Your task to perform on an android device: delete the emails in spam in the gmail app Image 0: 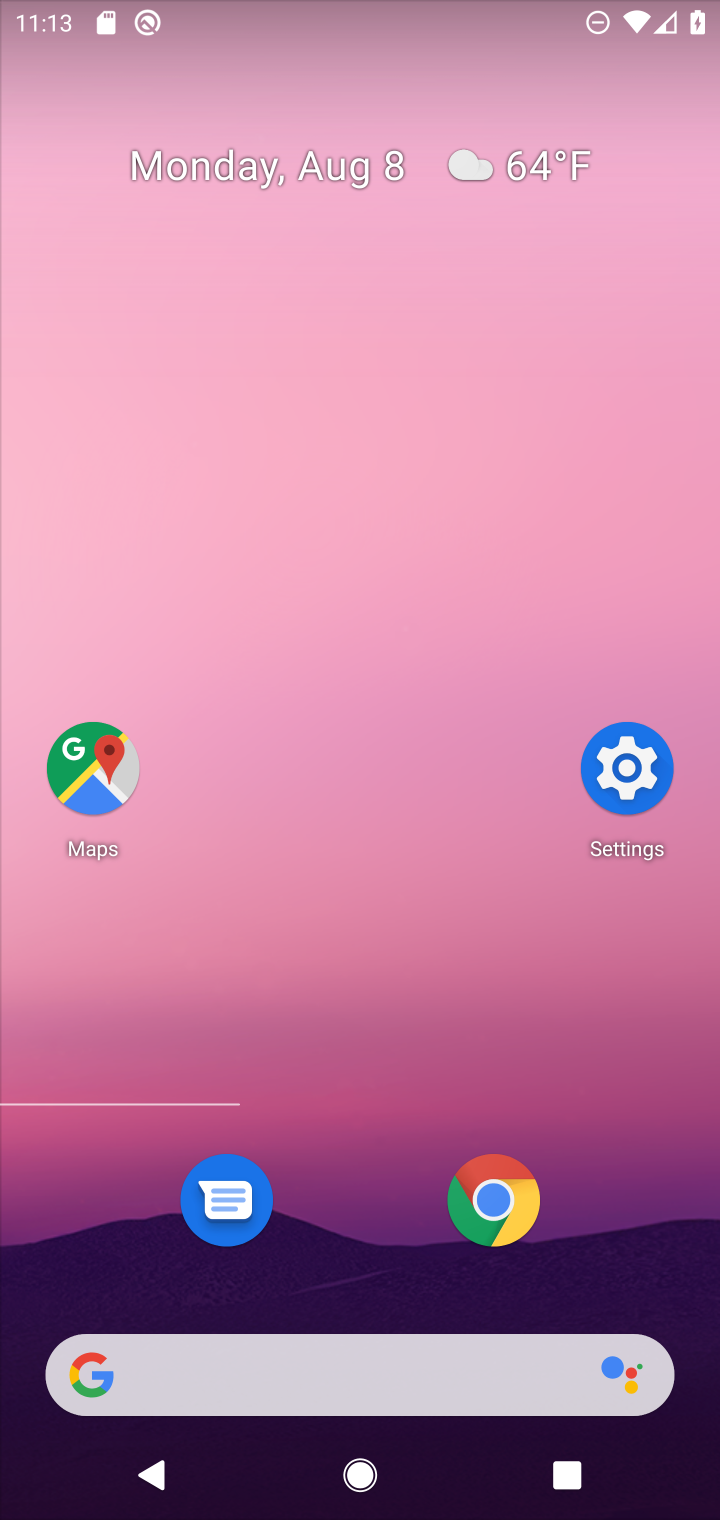
Step 0: drag from (242, 1391) to (529, 165)
Your task to perform on an android device: delete the emails in spam in the gmail app Image 1: 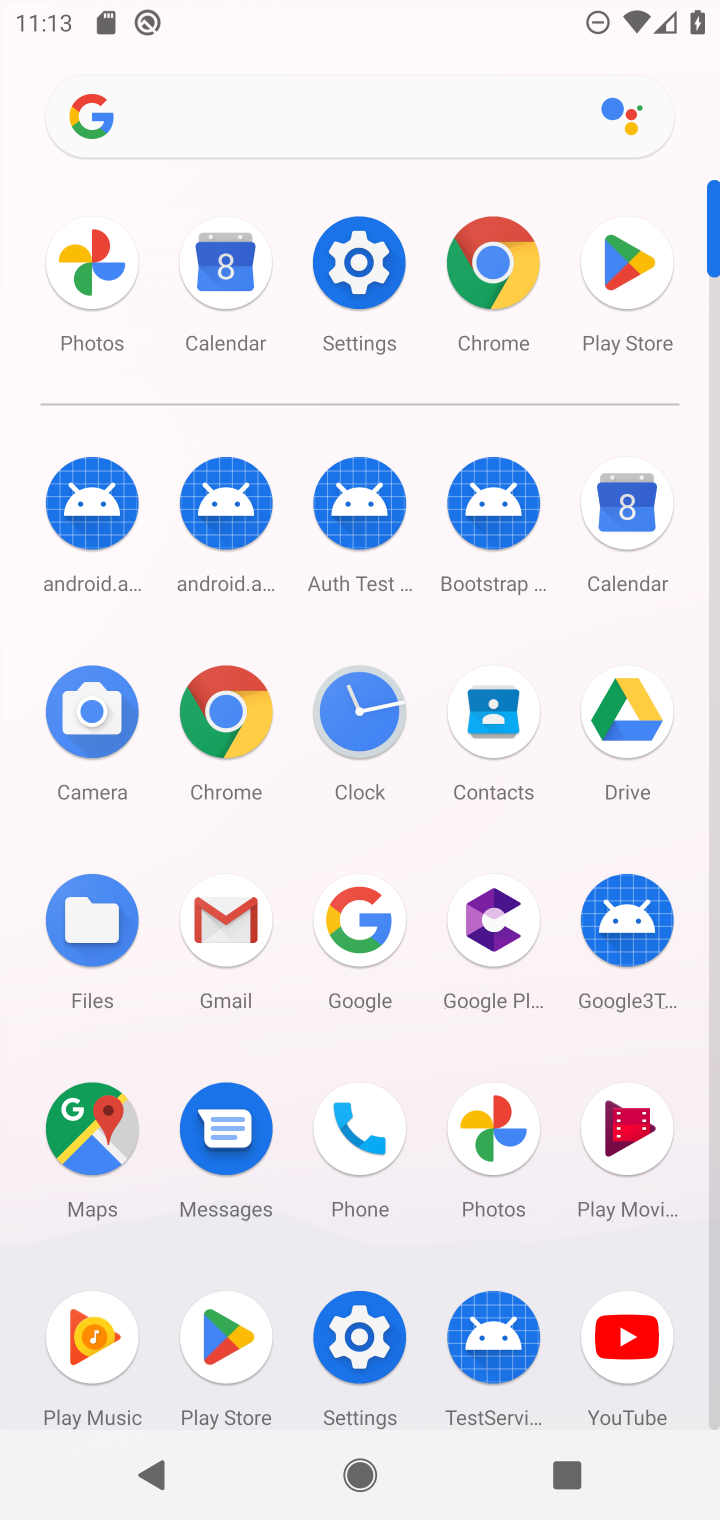
Step 1: click (218, 928)
Your task to perform on an android device: delete the emails in spam in the gmail app Image 2: 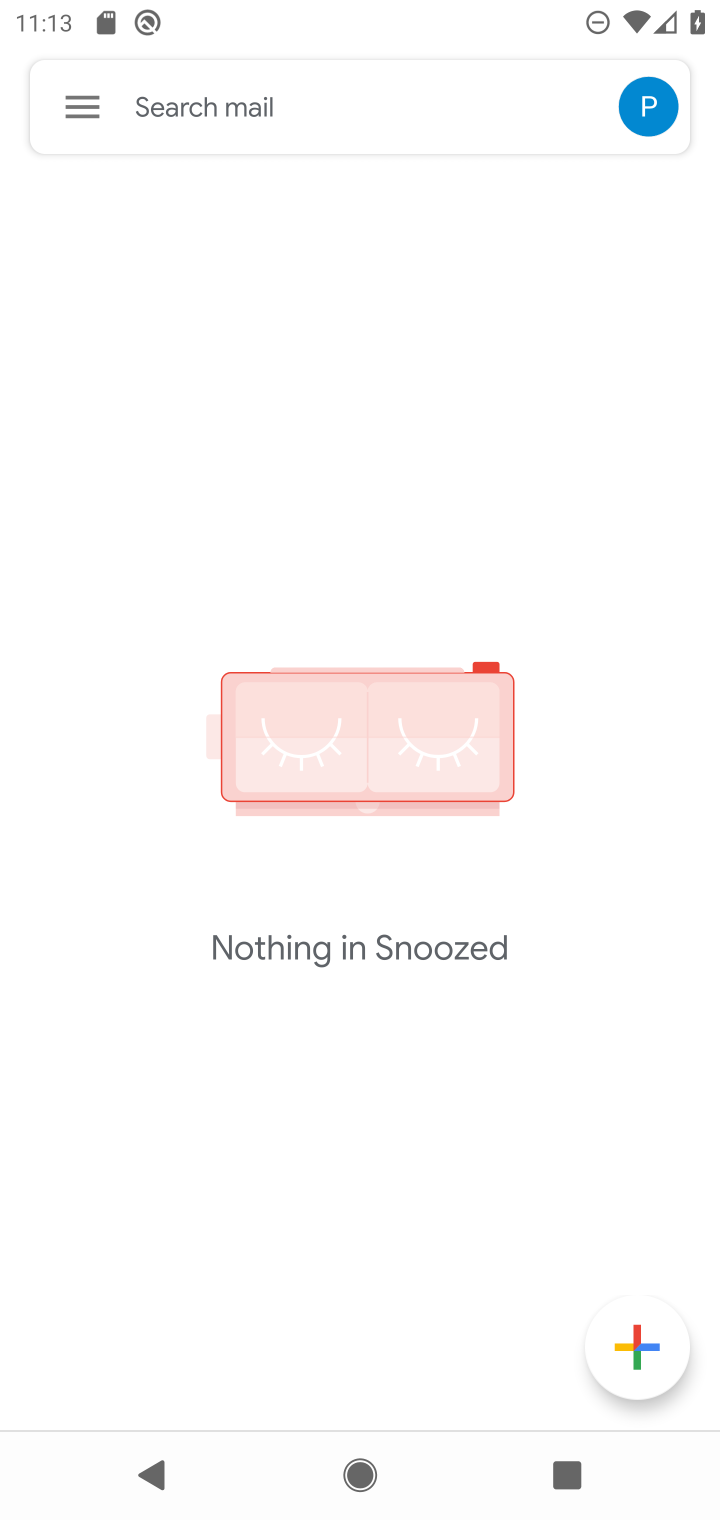
Step 2: click (85, 108)
Your task to perform on an android device: delete the emails in spam in the gmail app Image 3: 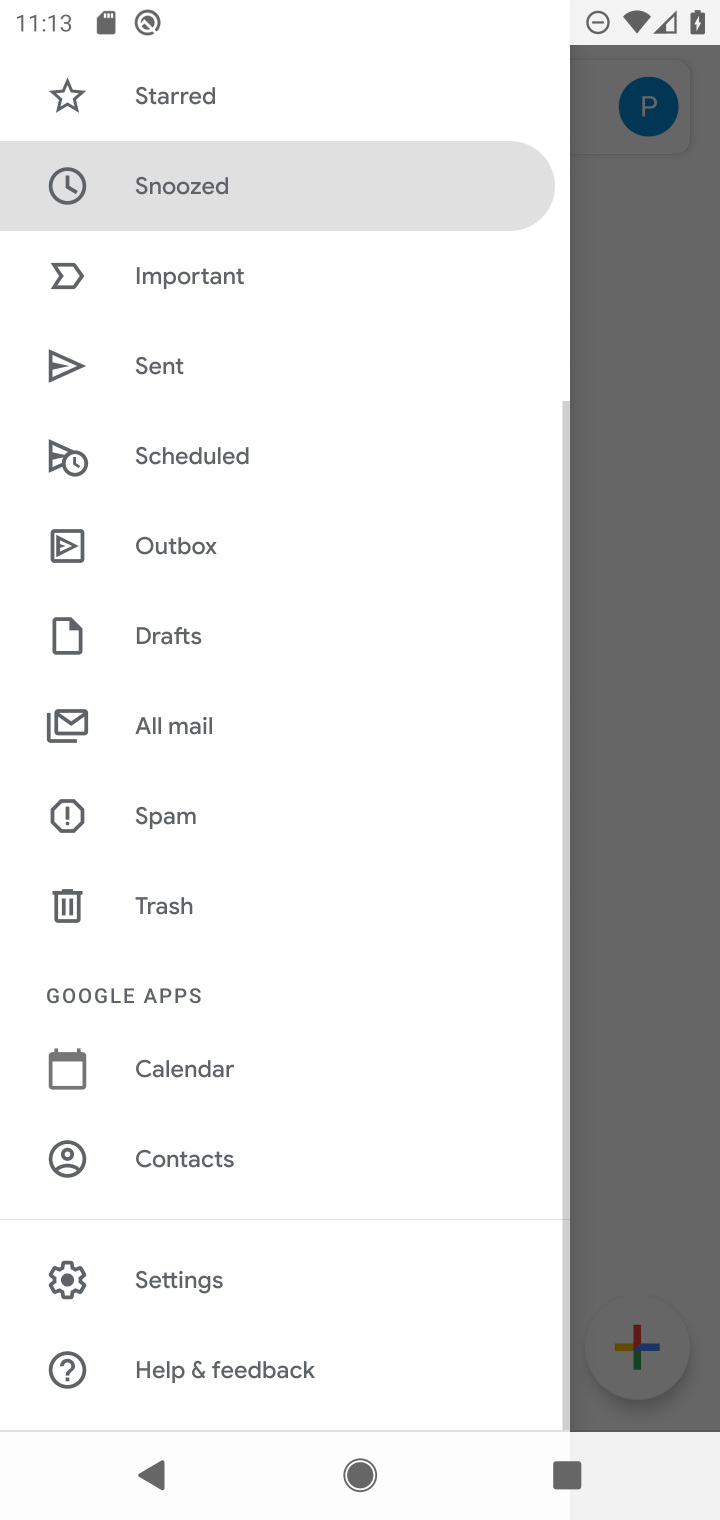
Step 3: click (196, 810)
Your task to perform on an android device: delete the emails in spam in the gmail app Image 4: 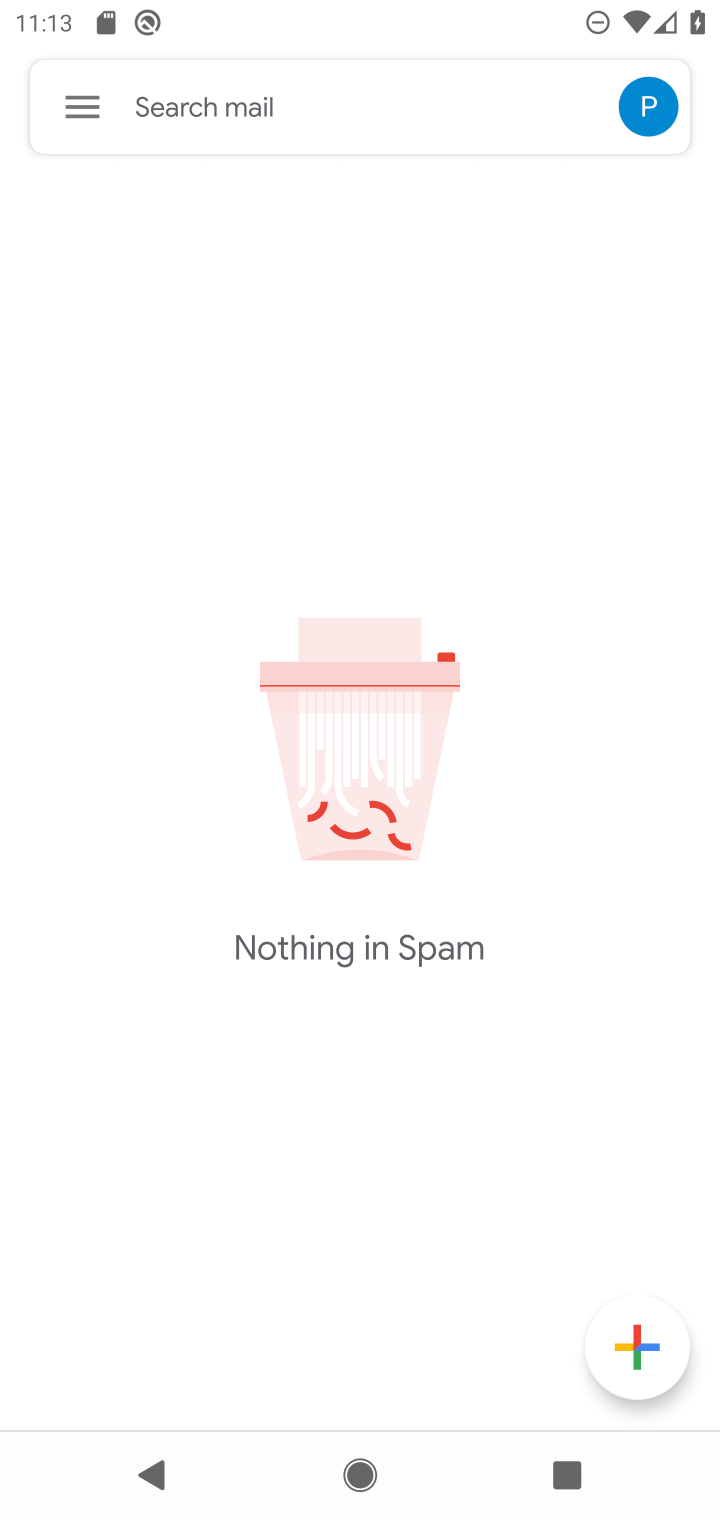
Step 4: task complete